Your task to perform on an android device: Search for seafood restaurants on Google Maps Image 0: 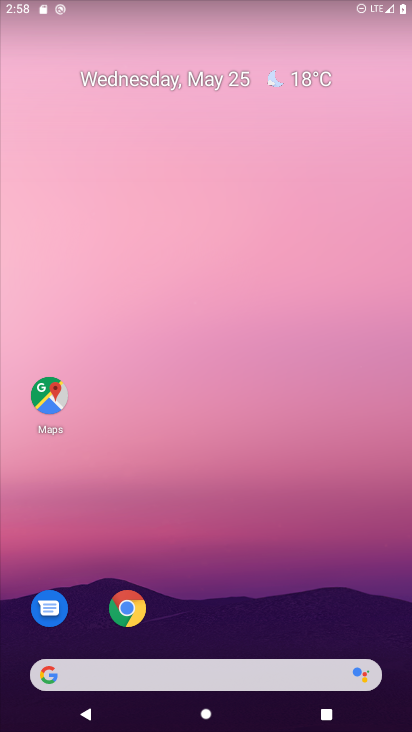
Step 0: click (52, 396)
Your task to perform on an android device: Search for seafood restaurants on Google Maps Image 1: 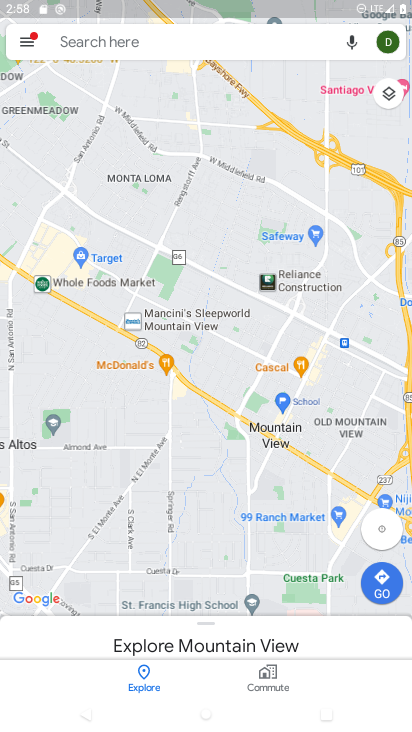
Step 1: click (126, 46)
Your task to perform on an android device: Search for seafood restaurants on Google Maps Image 2: 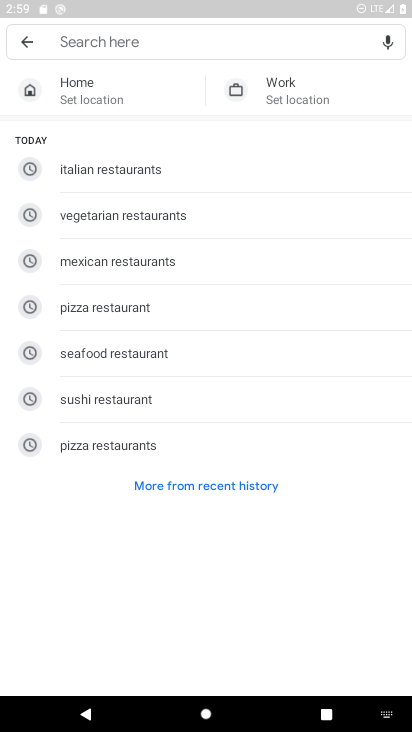
Step 2: type "seafood restaurants"
Your task to perform on an android device: Search for seafood restaurants on Google Maps Image 3: 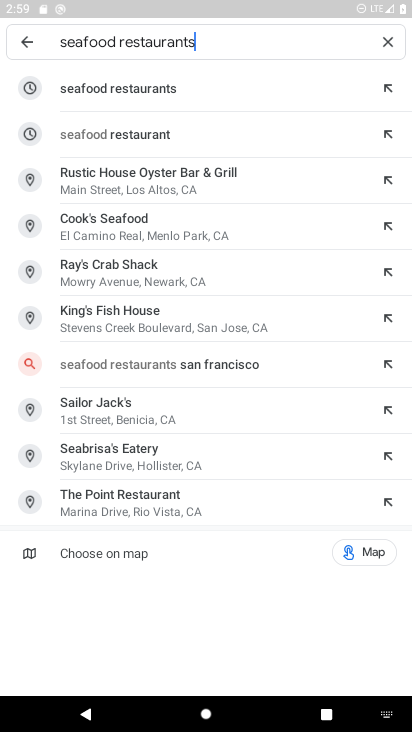
Step 3: click (134, 80)
Your task to perform on an android device: Search for seafood restaurants on Google Maps Image 4: 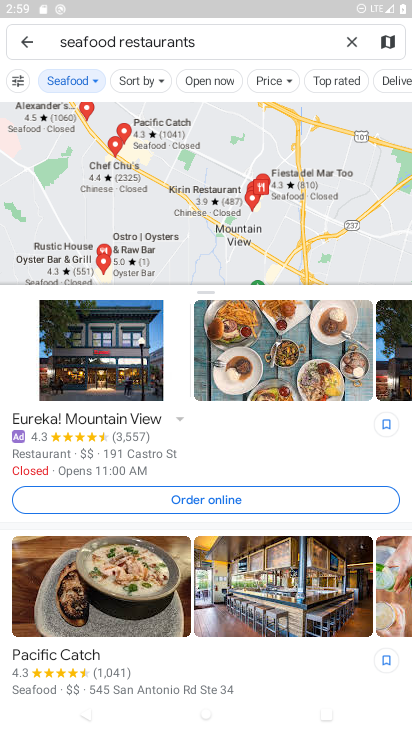
Step 4: task complete